Your task to perform on an android device: Open Wikipedia Image 0: 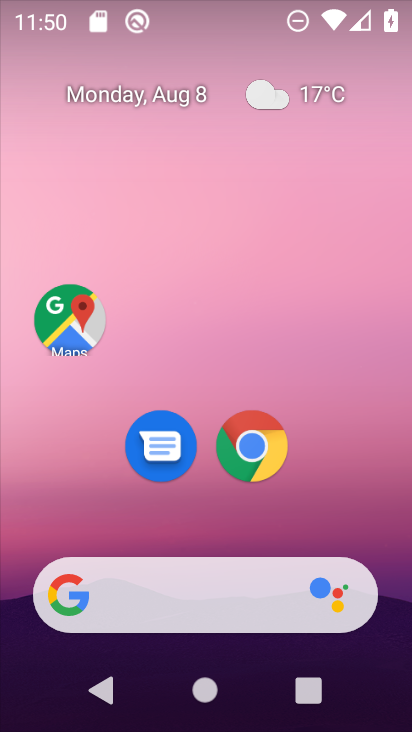
Step 0: click (392, 610)
Your task to perform on an android device: Open Wikipedia Image 1: 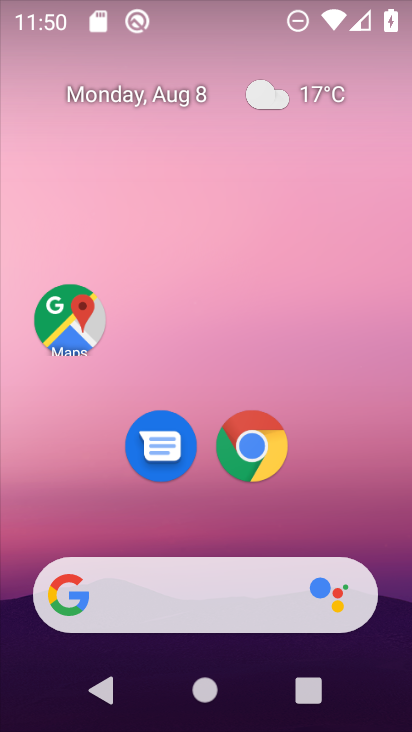
Step 1: click (252, 449)
Your task to perform on an android device: Open Wikipedia Image 2: 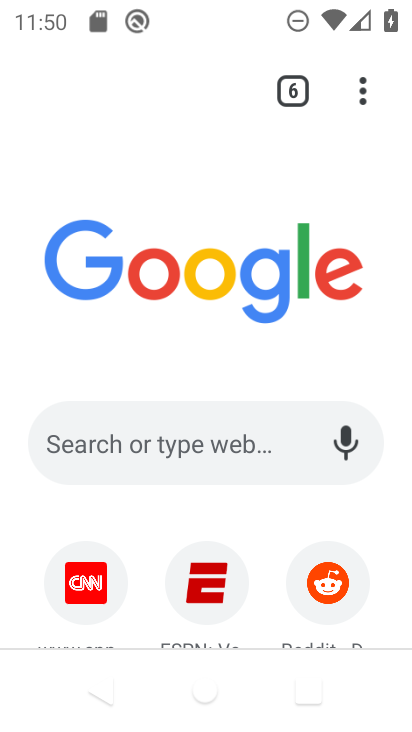
Step 2: click (209, 447)
Your task to perform on an android device: Open Wikipedia Image 3: 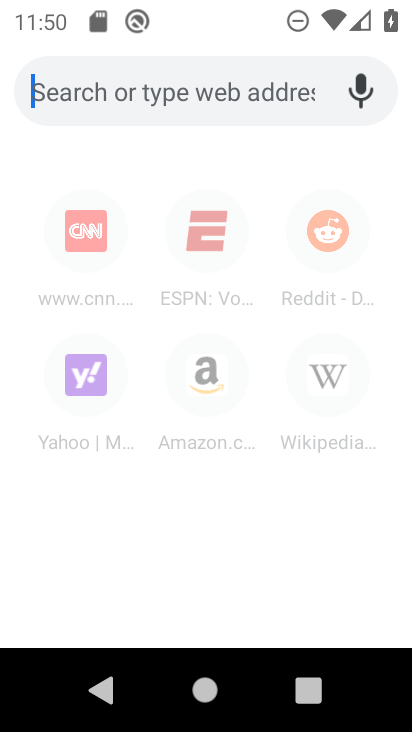
Step 3: type "wikipedia"
Your task to perform on an android device: Open Wikipedia Image 4: 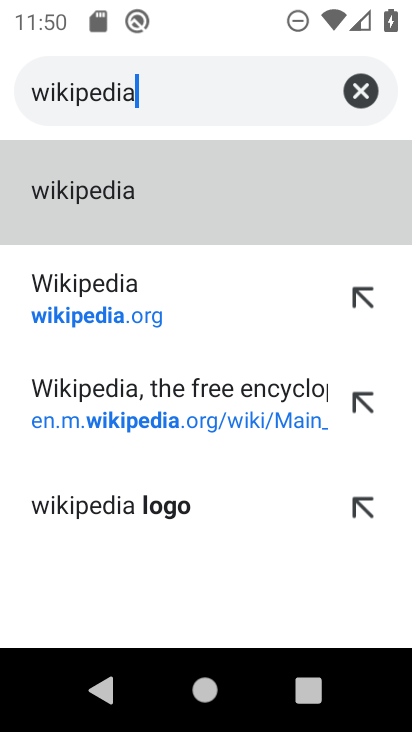
Step 4: click (106, 300)
Your task to perform on an android device: Open Wikipedia Image 5: 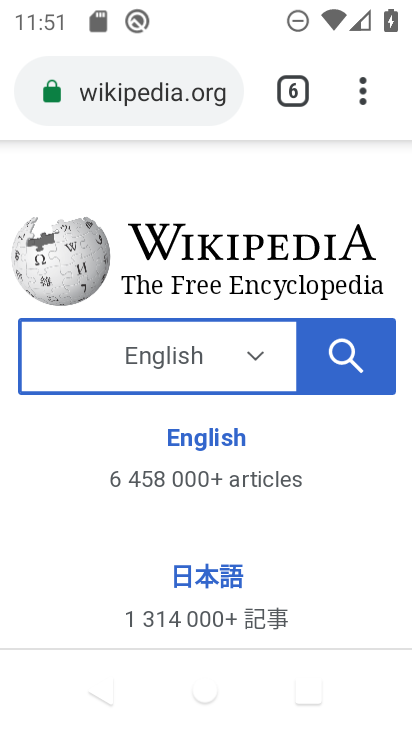
Step 5: task complete